Your task to perform on an android device: Search for usb-a to usb-b on walmart.com, select the first entry, and add it to the cart. Image 0: 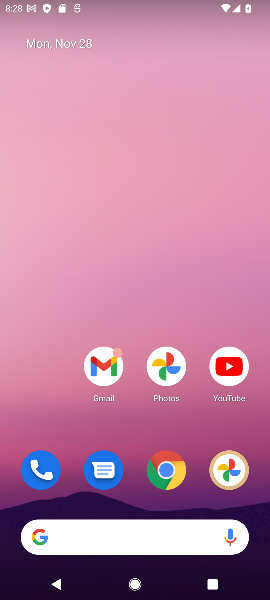
Step 0: drag from (139, 328) to (206, 14)
Your task to perform on an android device: Search for usb-a to usb-b on walmart.com, select the first entry, and add it to the cart. Image 1: 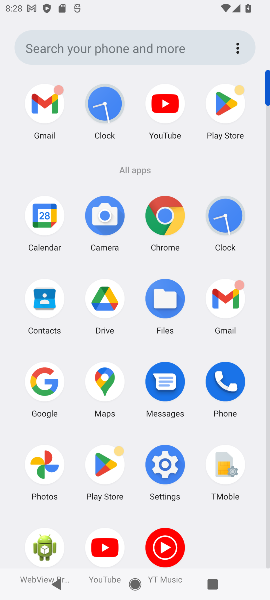
Step 1: click (42, 387)
Your task to perform on an android device: Search for usb-a to usb-b on walmart.com, select the first entry, and add it to the cart. Image 2: 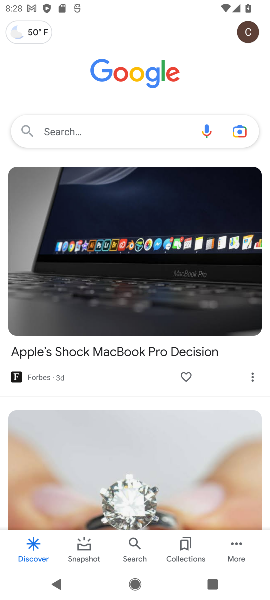
Step 2: click (126, 122)
Your task to perform on an android device: Search for usb-a to usb-b on walmart.com, select the first entry, and add it to the cart. Image 3: 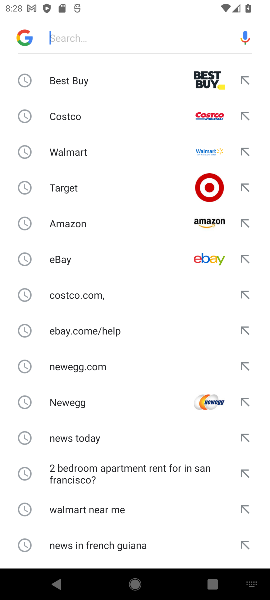
Step 3: click (73, 153)
Your task to perform on an android device: Search for usb-a to usb-b on walmart.com, select the first entry, and add it to the cart. Image 4: 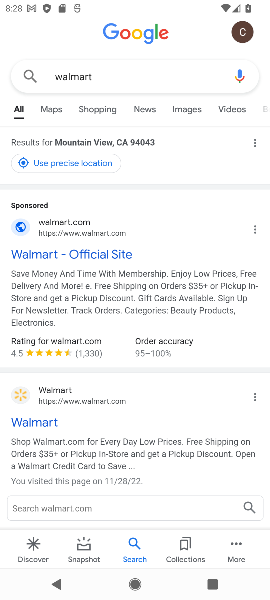
Step 4: click (25, 421)
Your task to perform on an android device: Search for usb-a to usb-b on walmart.com, select the first entry, and add it to the cart. Image 5: 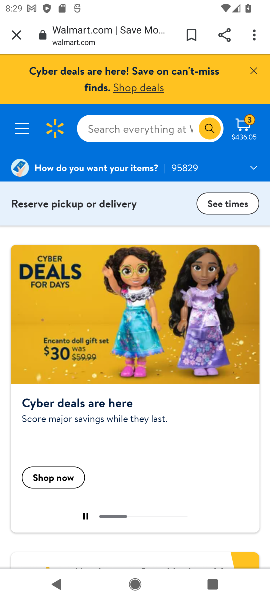
Step 5: click (120, 121)
Your task to perform on an android device: Search for usb-a to usb-b on walmart.com, select the first entry, and add it to the cart. Image 6: 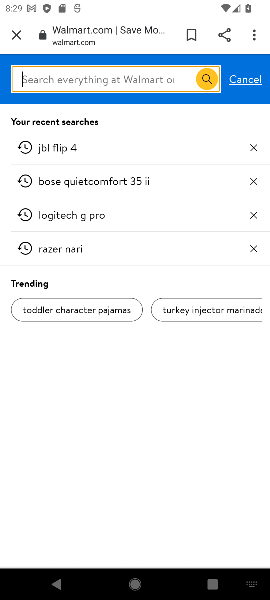
Step 6: type "usb-b"
Your task to perform on an android device: Search for usb-a to usb-b on walmart.com, select the first entry, and add it to the cart. Image 7: 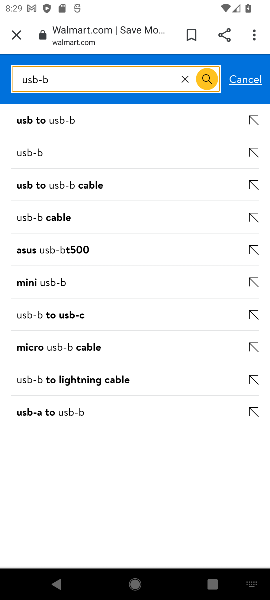
Step 7: click (32, 160)
Your task to perform on an android device: Search for usb-a to usb-b on walmart.com, select the first entry, and add it to the cart. Image 8: 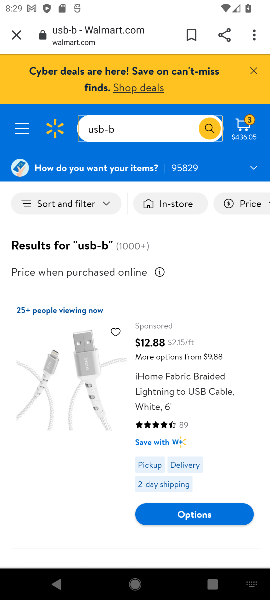
Step 8: click (205, 513)
Your task to perform on an android device: Search for usb-a to usb-b on walmart.com, select the first entry, and add it to the cart. Image 9: 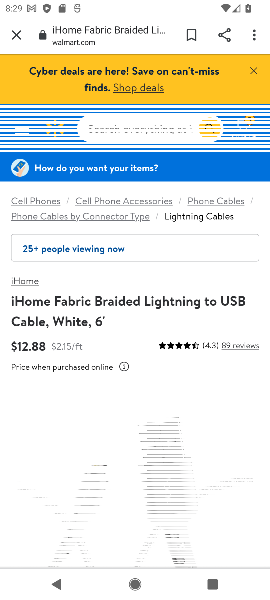
Step 9: click (217, 546)
Your task to perform on an android device: Search for usb-a to usb-b on walmart.com, select the first entry, and add it to the cart. Image 10: 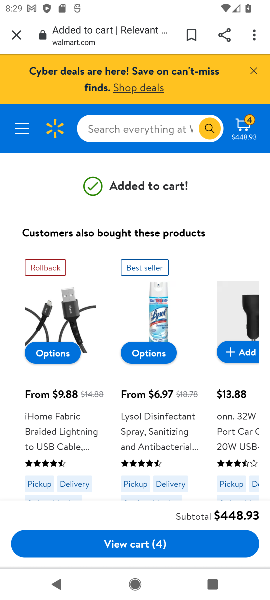
Step 10: task complete